Your task to perform on an android device: change alarm snooze length Image 0: 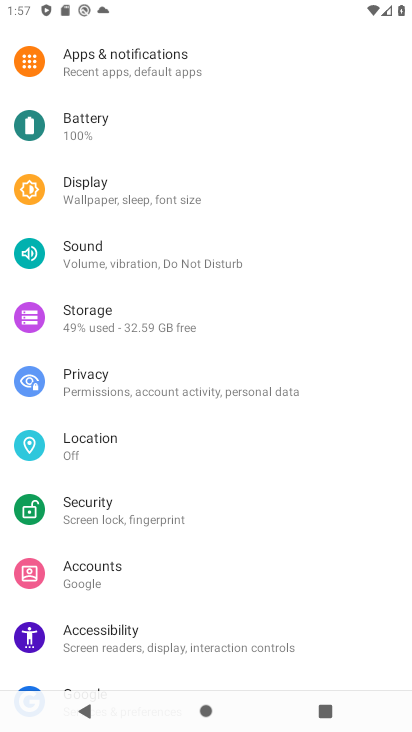
Step 0: press home button
Your task to perform on an android device: change alarm snooze length Image 1: 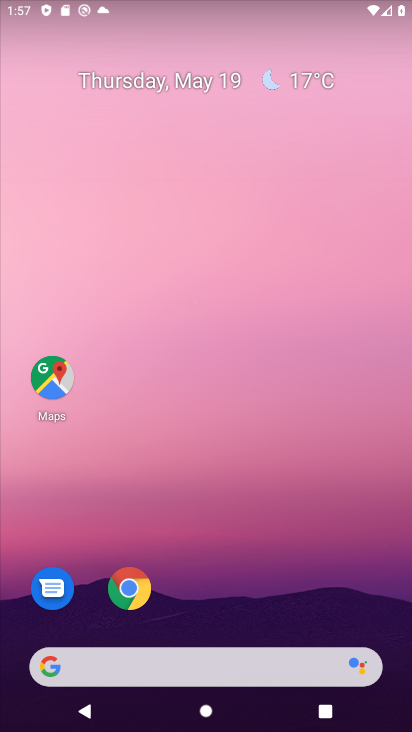
Step 1: drag from (271, 579) to (280, 179)
Your task to perform on an android device: change alarm snooze length Image 2: 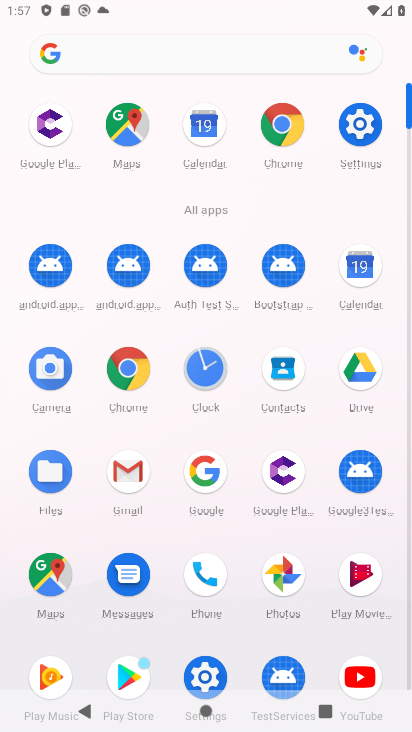
Step 2: click (214, 377)
Your task to perform on an android device: change alarm snooze length Image 3: 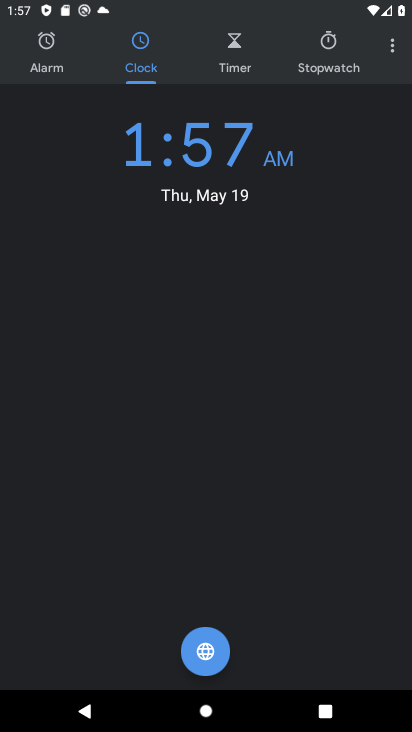
Step 3: click (384, 56)
Your task to perform on an android device: change alarm snooze length Image 4: 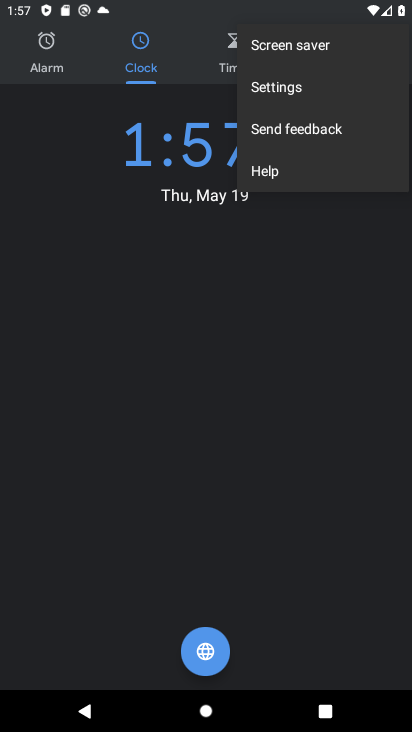
Step 4: click (287, 84)
Your task to perform on an android device: change alarm snooze length Image 5: 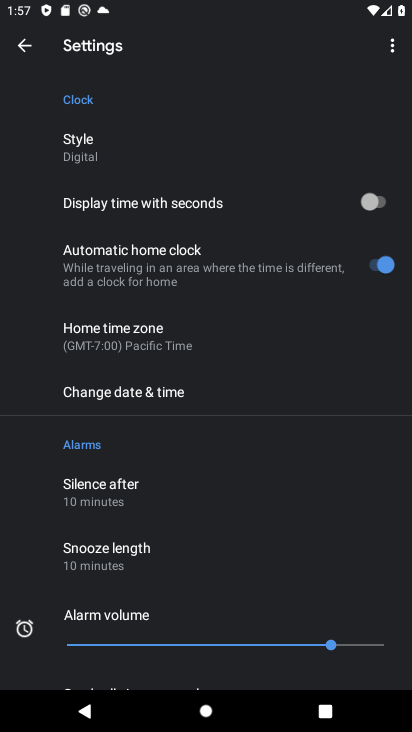
Step 5: click (132, 558)
Your task to perform on an android device: change alarm snooze length Image 6: 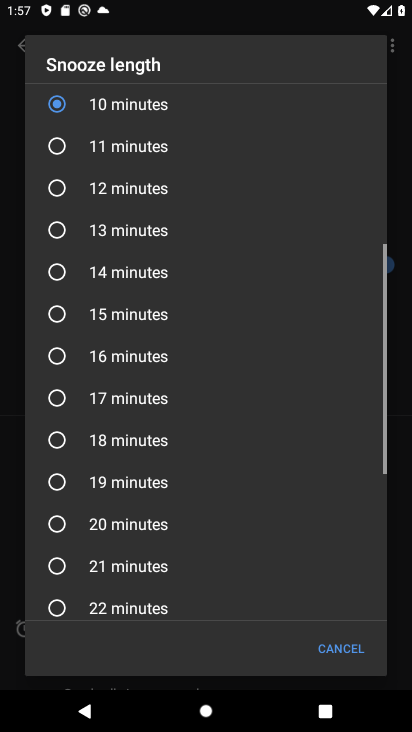
Step 6: click (142, 157)
Your task to perform on an android device: change alarm snooze length Image 7: 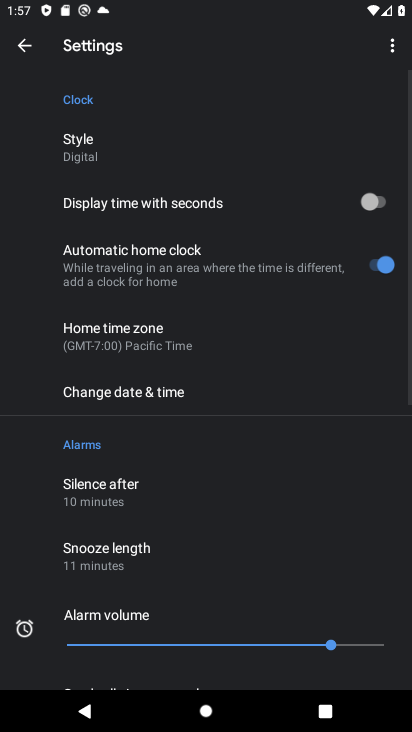
Step 7: task complete